Your task to perform on an android device: see creations saved in the google photos Image 0: 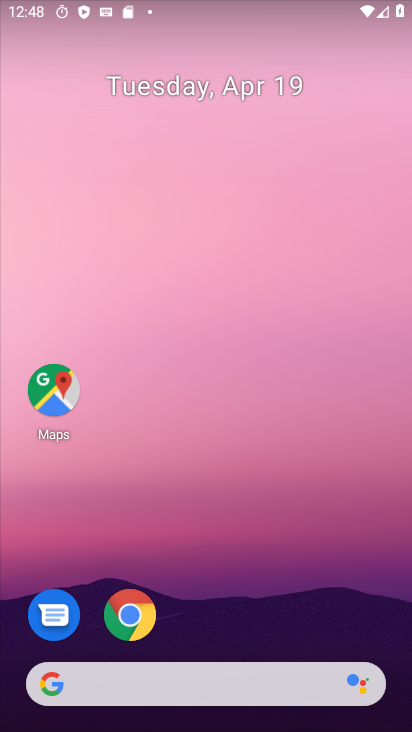
Step 0: drag from (373, 592) to (369, 67)
Your task to perform on an android device: see creations saved in the google photos Image 1: 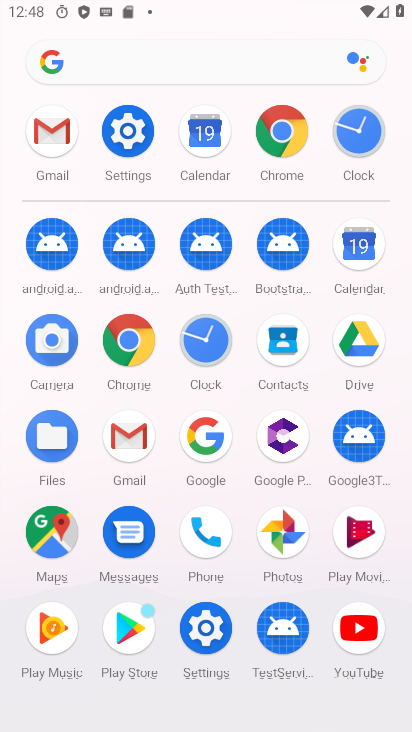
Step 1: click (286, 528)
Your task to perform on an android device: see creations saved in the google photos Image 2: 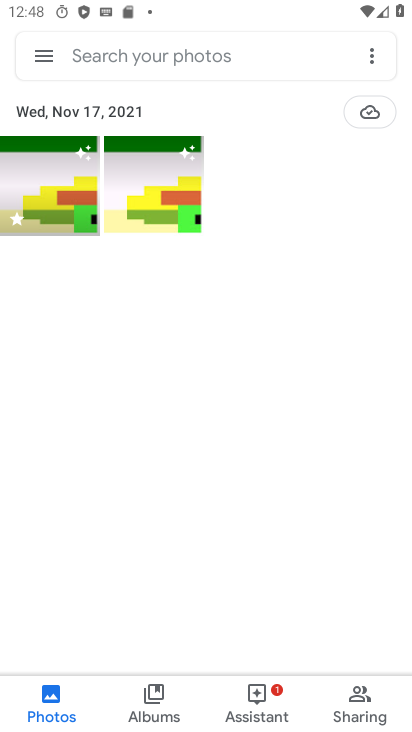
Step 2: click (242, 57)
Your task to perform on an android device: see creations saved in the google photos Image 3: 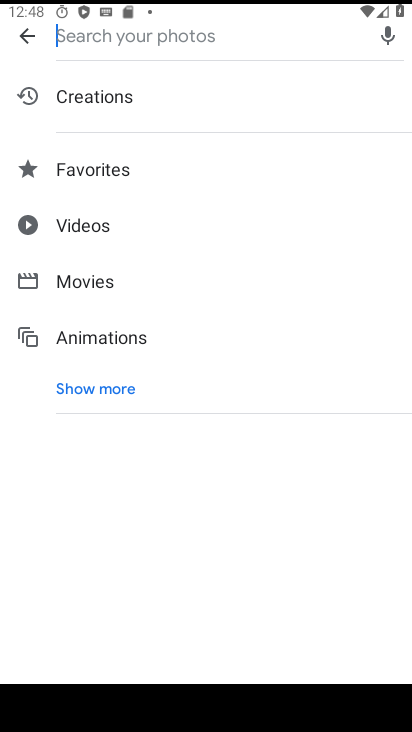
Step 3: click (98, 105)
Your task to perform on an android device: see creations saved in the google photos Image 4: 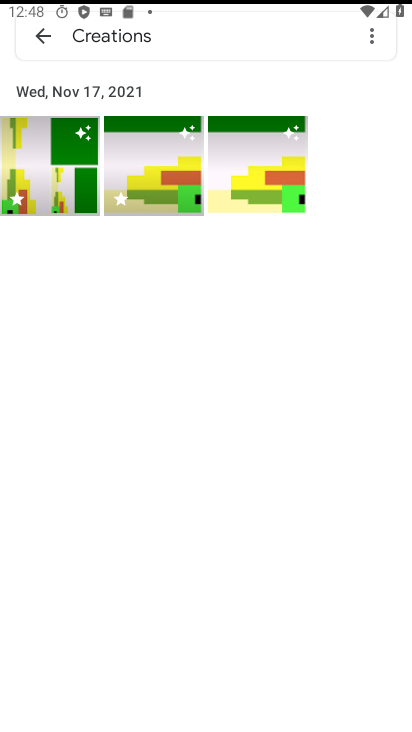
Step 4: task complete